Your task to perform on an android device: Go to network settings Image 0: 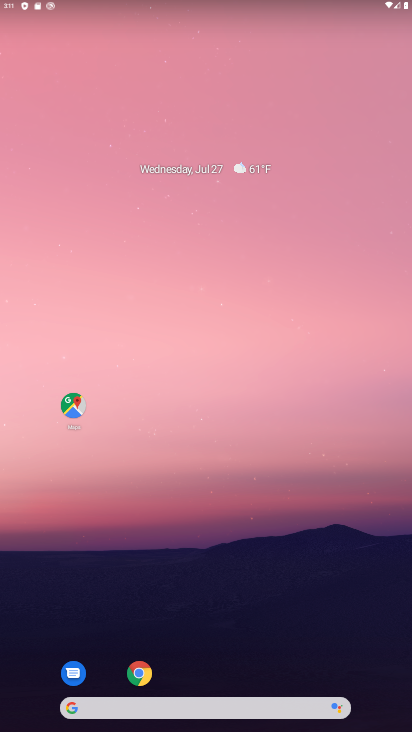
Step 0: drag from (323, 600) to (267, 200)
Your task to perform on an android device: Go to network settings Image 1: 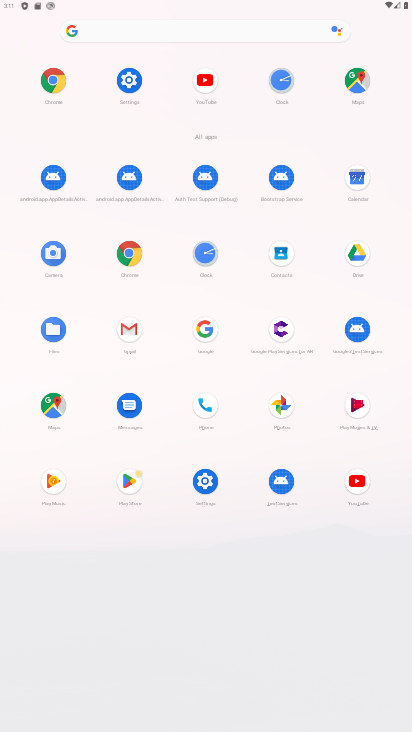
Step 1: click (134, 90)
Your task to perform on an android device: Go to network settings Image 2: 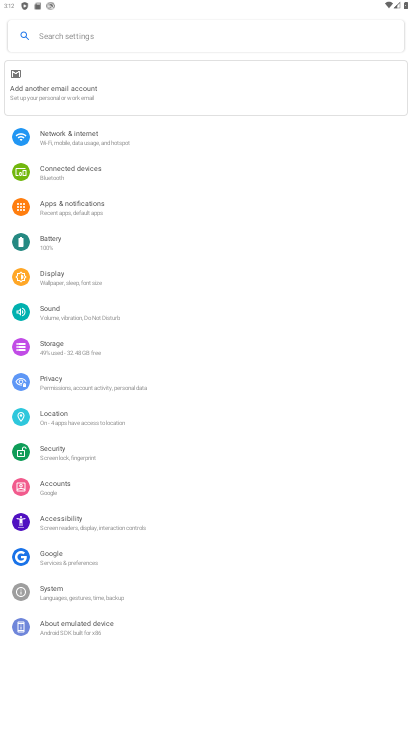
Step 2: click (77, 139)
Your task to perform on an android device: Go to network settings Image 3: 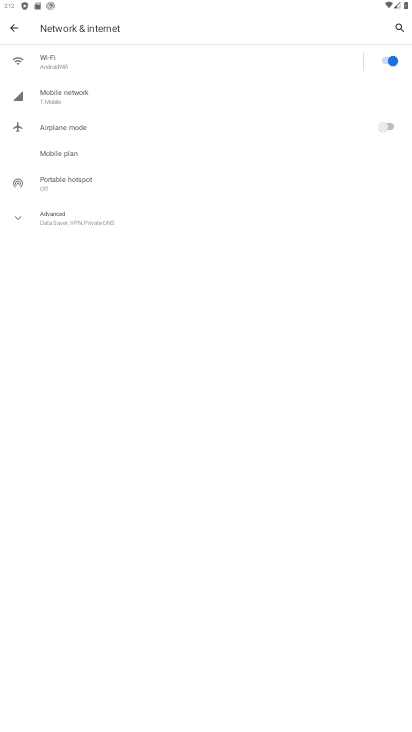
Step 3: task complete